Your task to perform on an android device: Open Google Image 0: 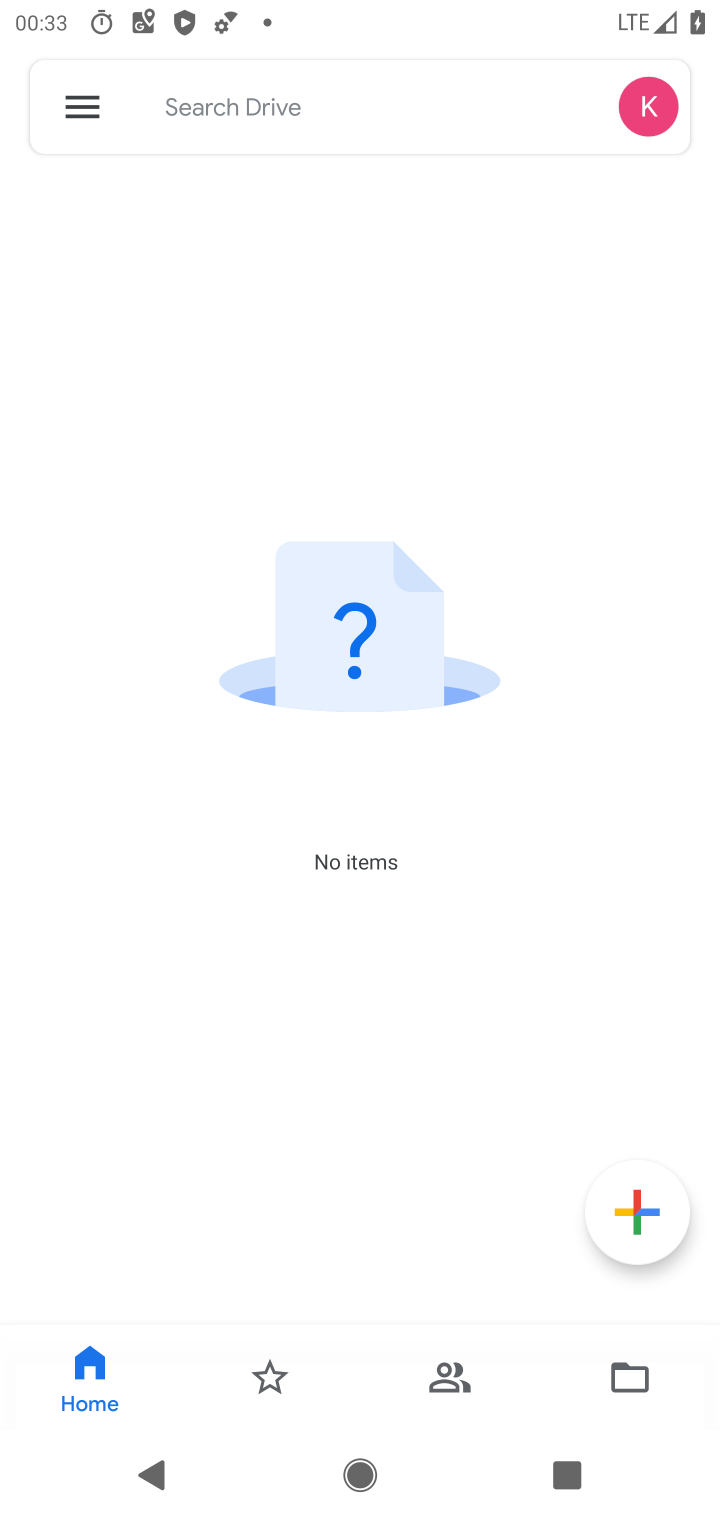
Step 0: press home button
Your task to perform on an android device: Open Google Image 1: 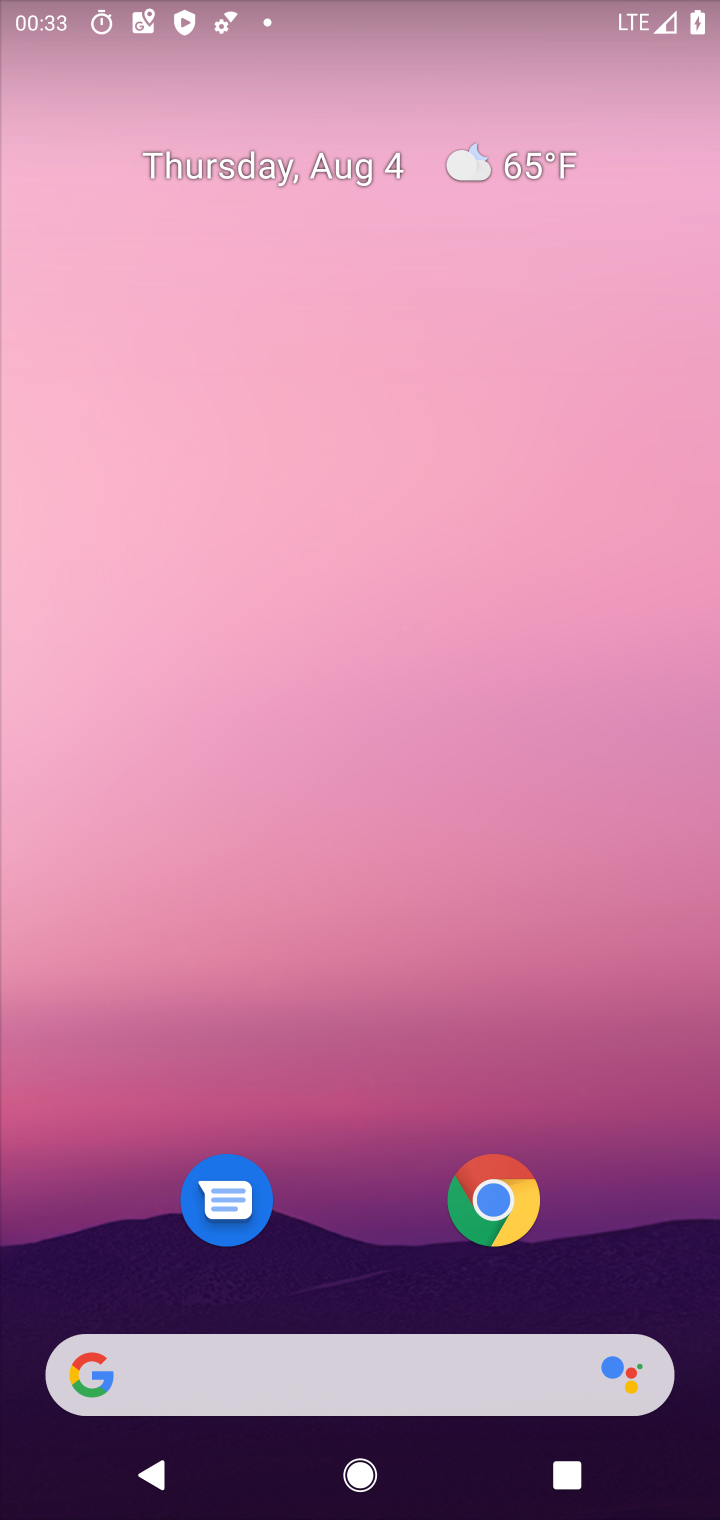
Step 1: drag from (321, 1159) to (304, 487)
Your task to perform on an android device: Open Google Image 2: 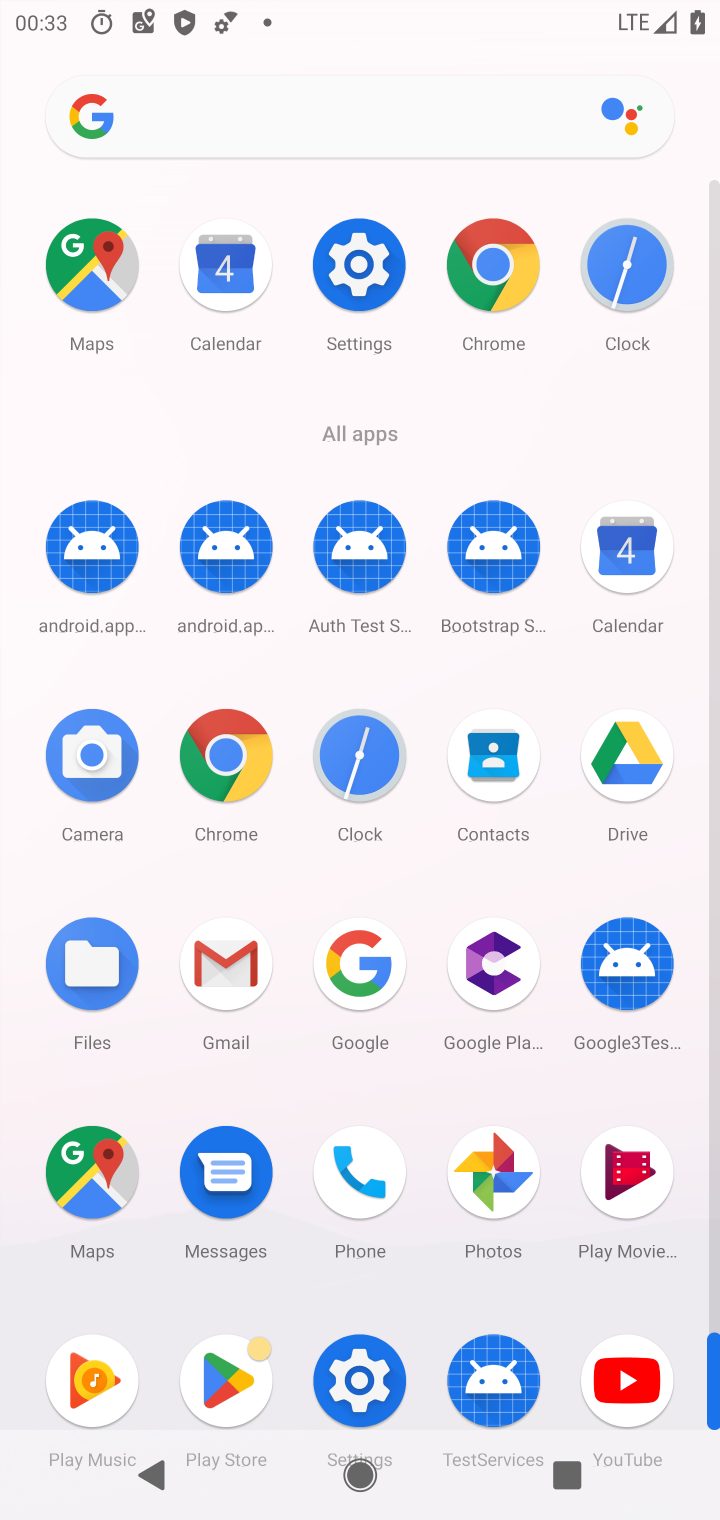
Step 2: click (370, 963)
Your task to perform on an android device: Open Google Image 3: 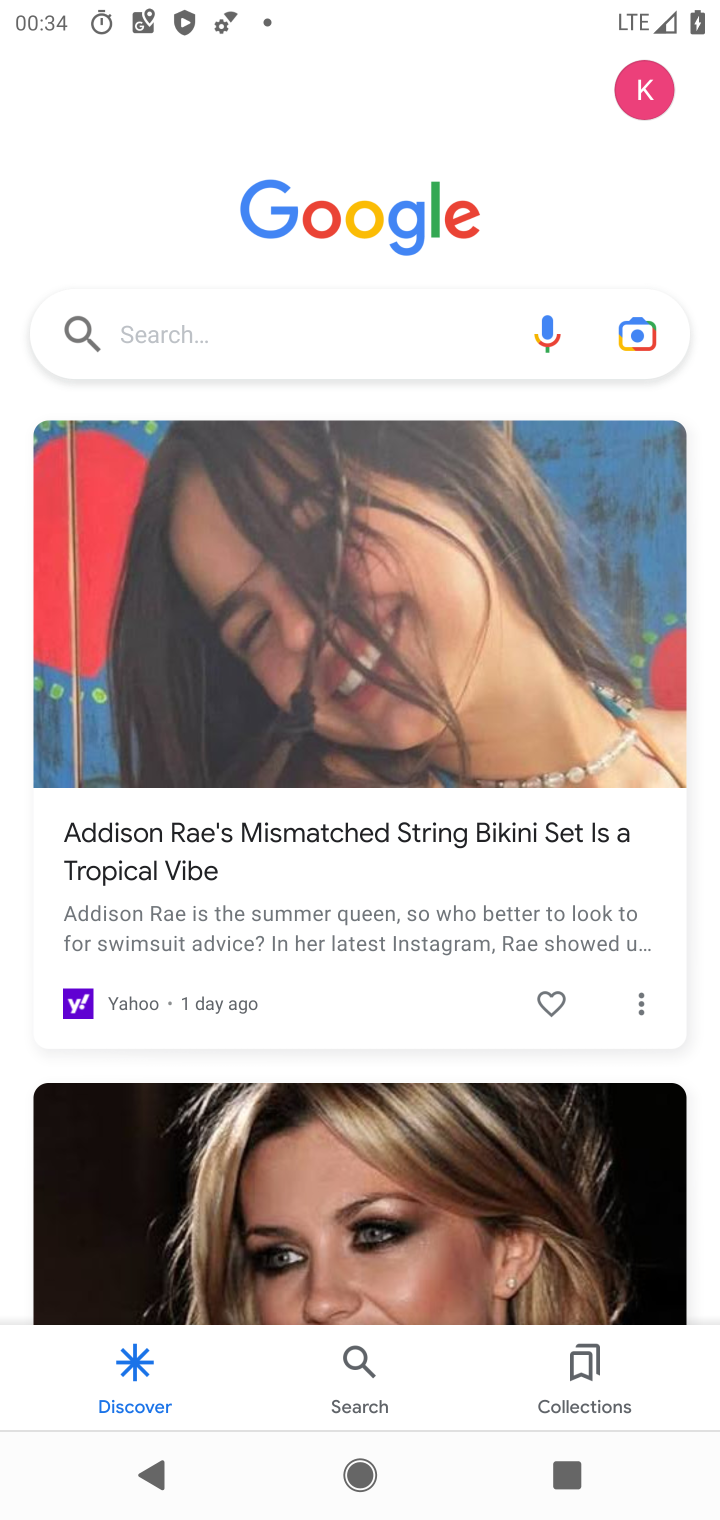
Step 3: click (286, 320)
Your task to perform on an android device: Open Google Image 4: 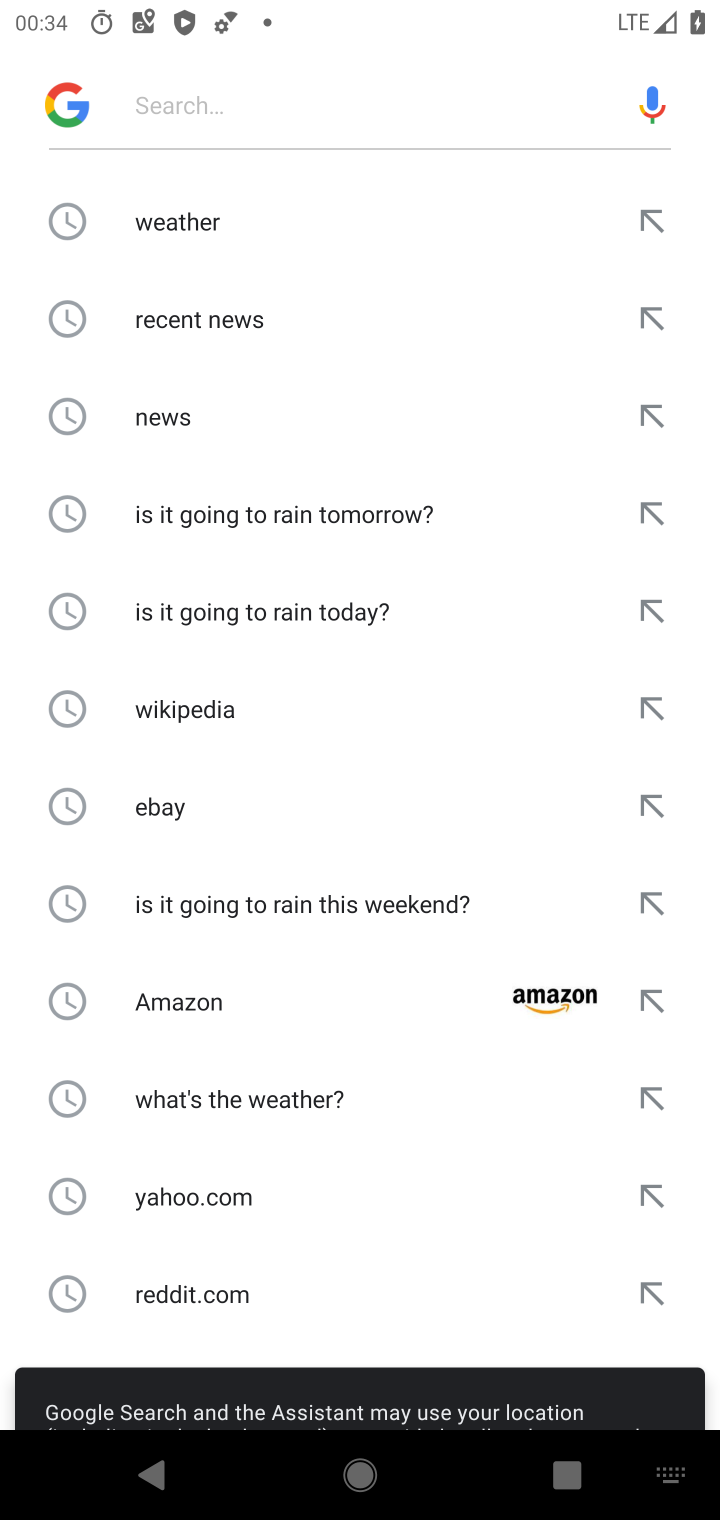
Step 4: type "Google"
Your task to perform on an android device: Open Google Image 5: 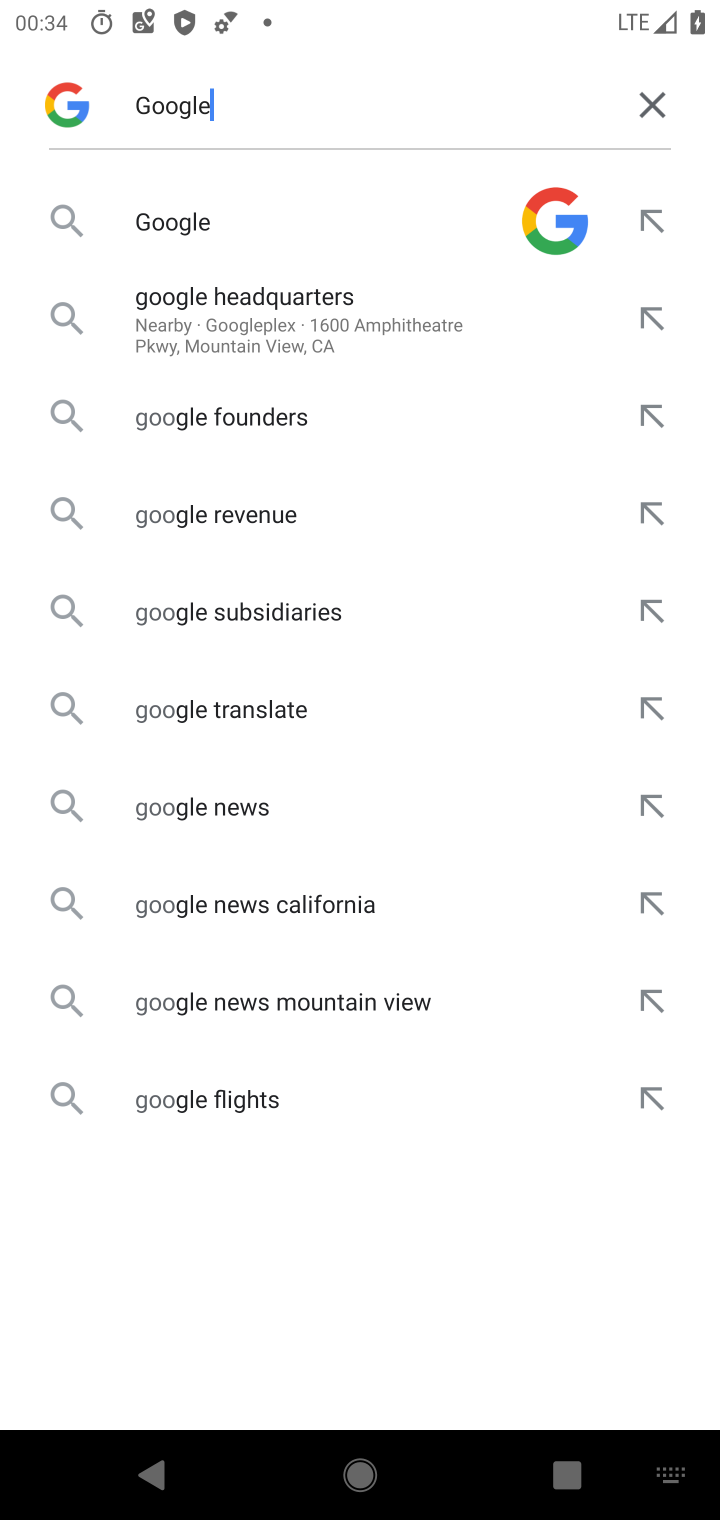
Step 5: type ""
Your task to perform on an android device: Open Google Image 6: 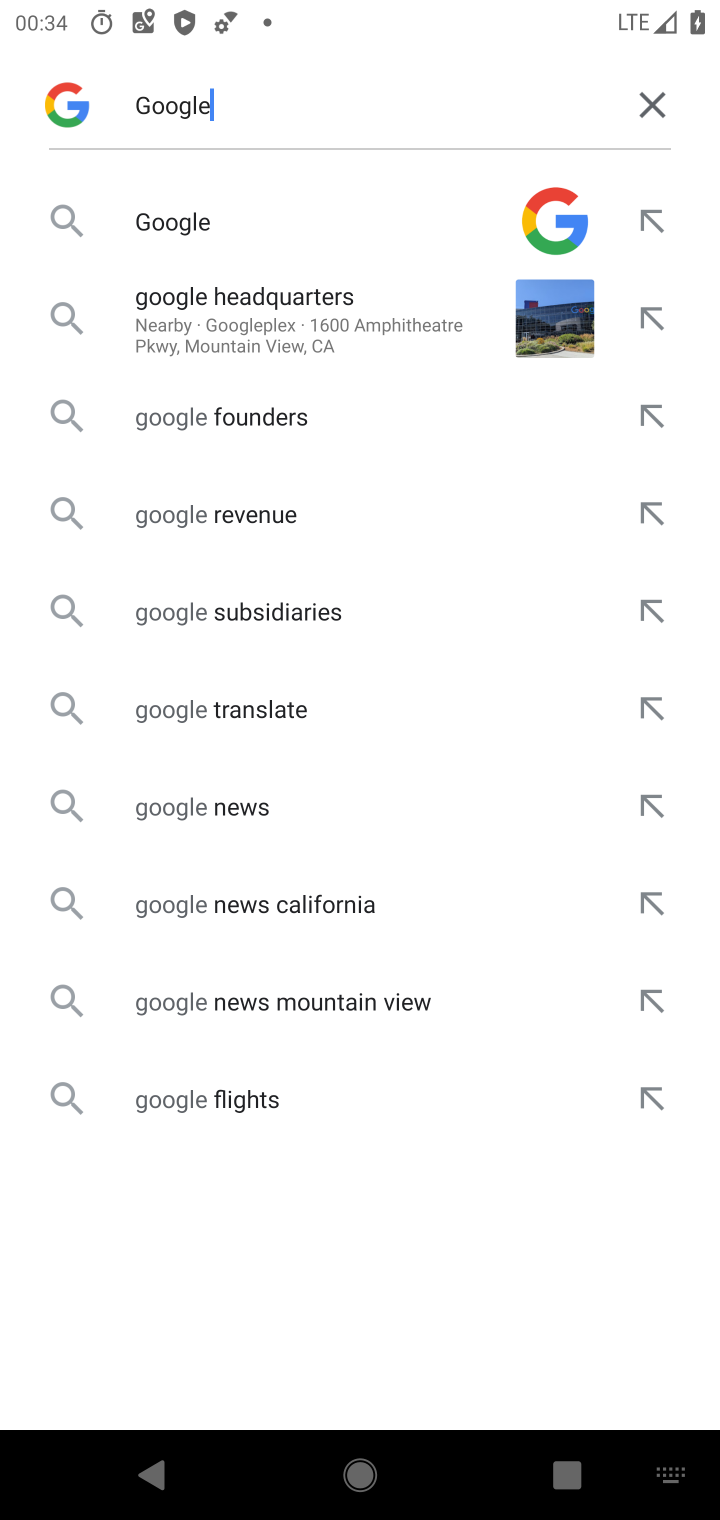
Step 6: task complete